Your task to perform on an android device: toggle notifications settings in the gmail app Image 0: 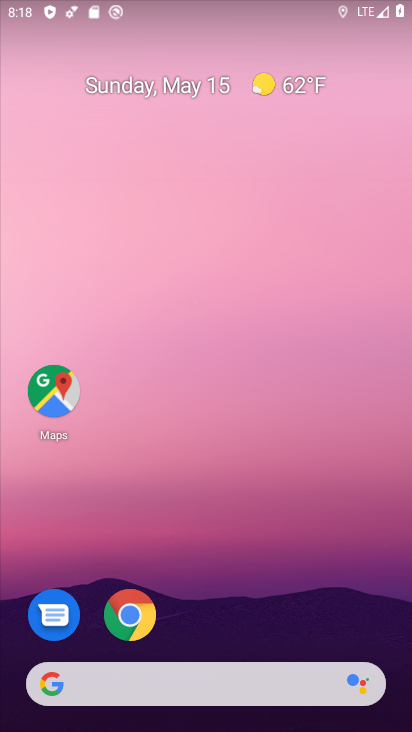
Step 0: drag from (228, 250) to (270, 23)
Your task to perform on an android device: toggle notifications settings in the gmail app Image 1: 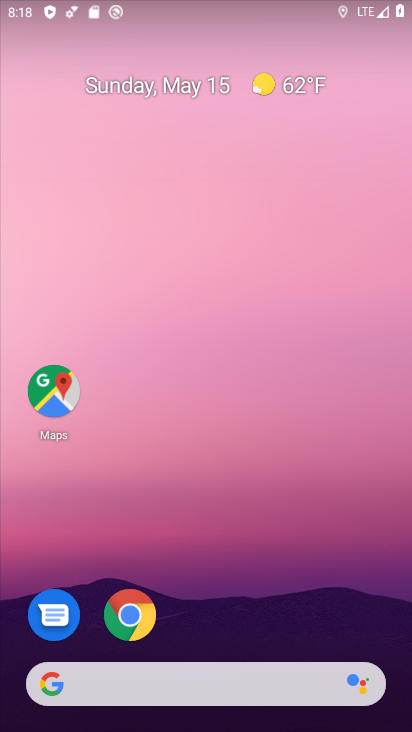
Step 1: drag from (202, 476) to (259, 6)
Your task to perform on an android device: toggle notifications settings in the gmail app Image 2: 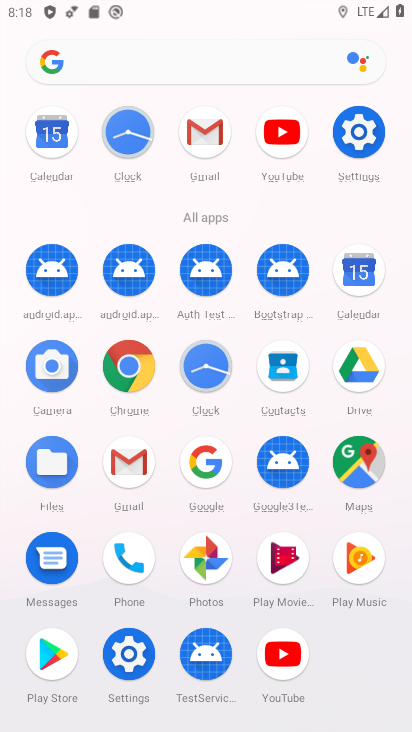
Step 2: click (359, 139)
Your task to perform on an android device: toggle notifications settings in the gmail app Image 3: 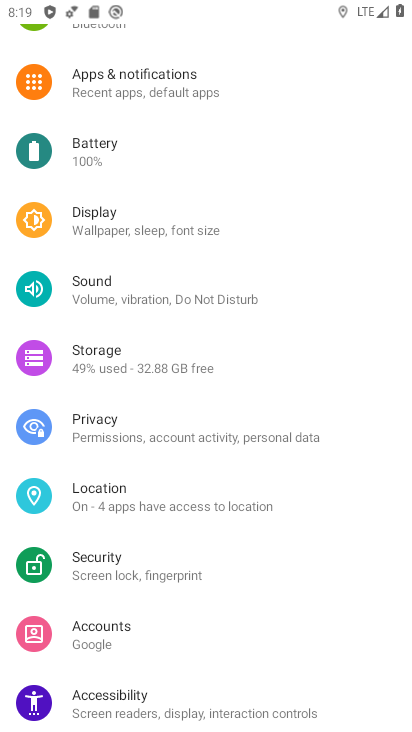
Step 3: click (179, 99)
Your task to perform on an android device: toggle notifications settings in the gmail app Image 4: 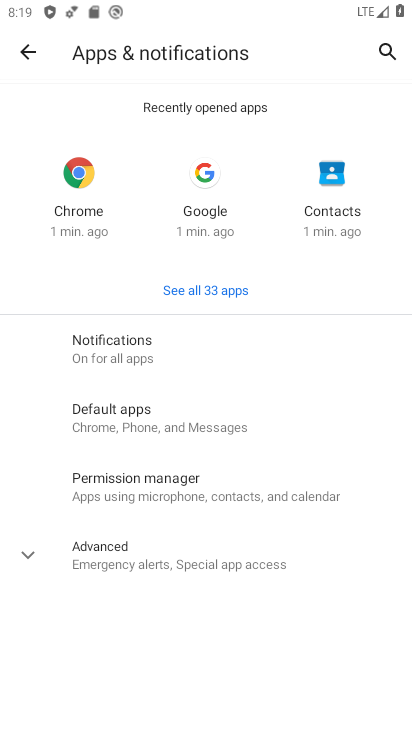
Step 4: click (173, 358)
Your task to perform on an android device: toggle notifications settings in the gmail app Image 5: 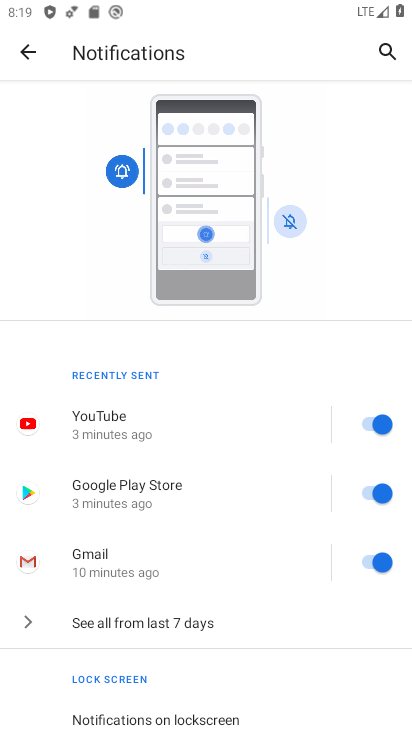
Step 5: click (382, 564)
Your task to perform on an android device: toggle notifications settings in the gmail app Image 6: 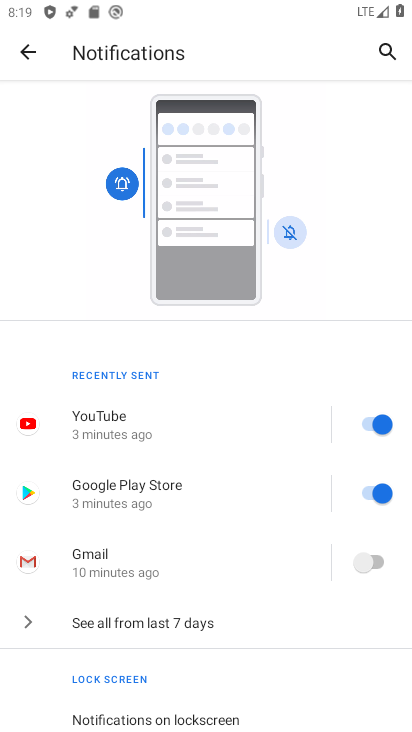
Step 6: click (377, 494)
Your task to perform on an android device: toggle notifications settings in the gmail app Image 7: 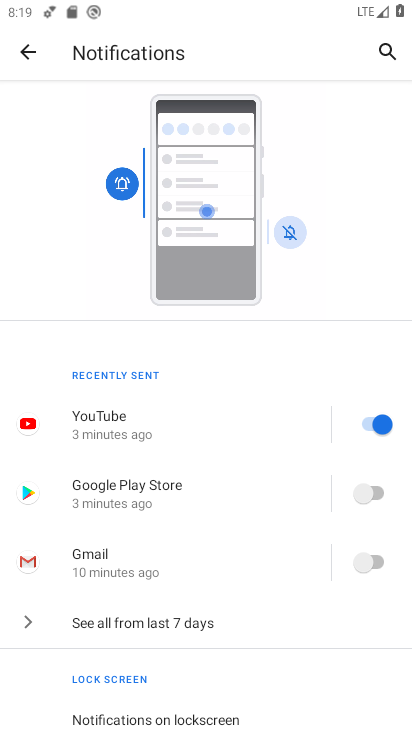
Step 7: task complete